Your task to perform on an android device: Checkthe settings for the Amazon Prime Music app Image 0: 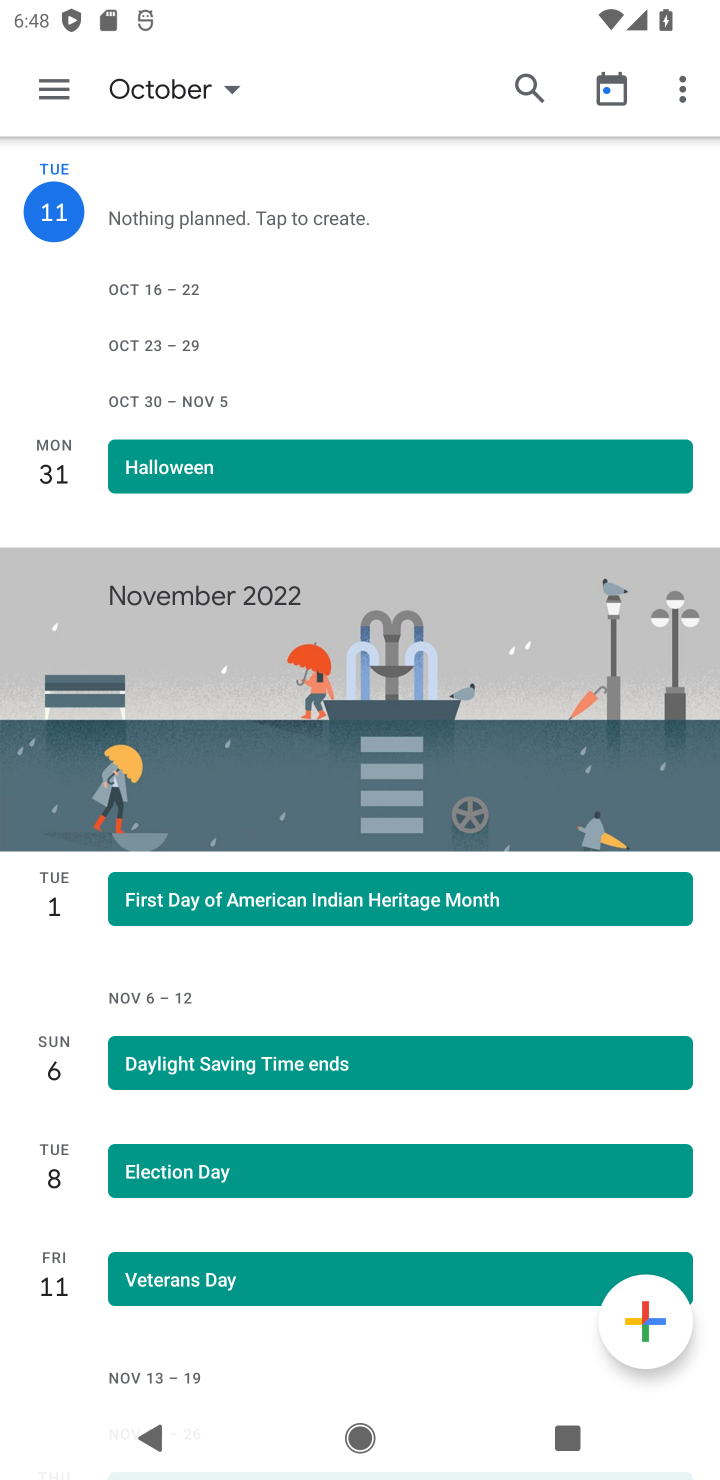
Step 0: press home button
Your task to perform on an android device: Checkthe settings for the Amazon Prime Music app Image 1: 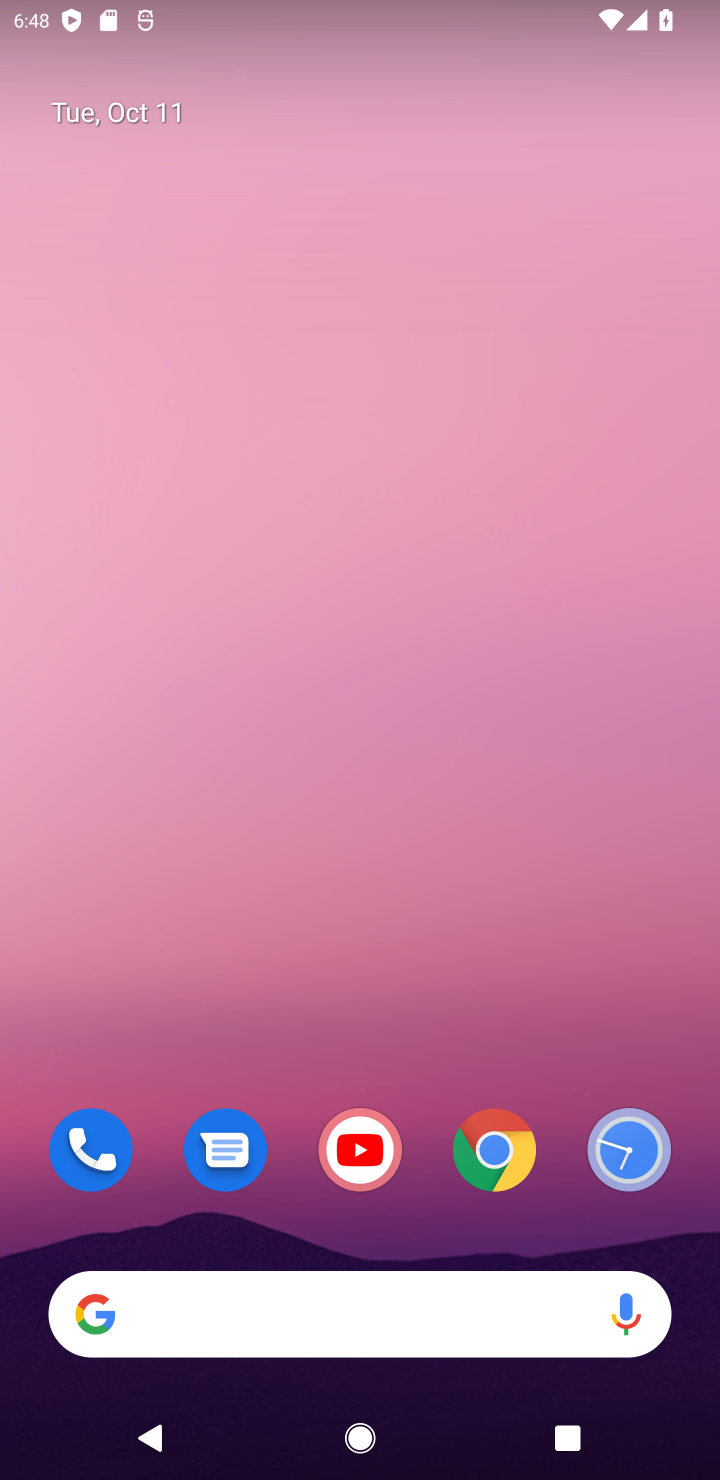
Step 1: task complete